Your task to perform on an android device: read, delete, or share a saved page in the chrome app Image 0: 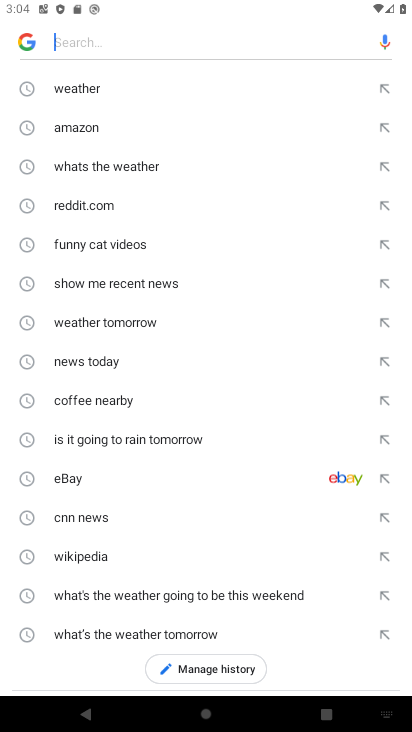
Step 0: press back button
Your task to perform on an android device: read, delete, or share a saved page in the chrome app Image 1: 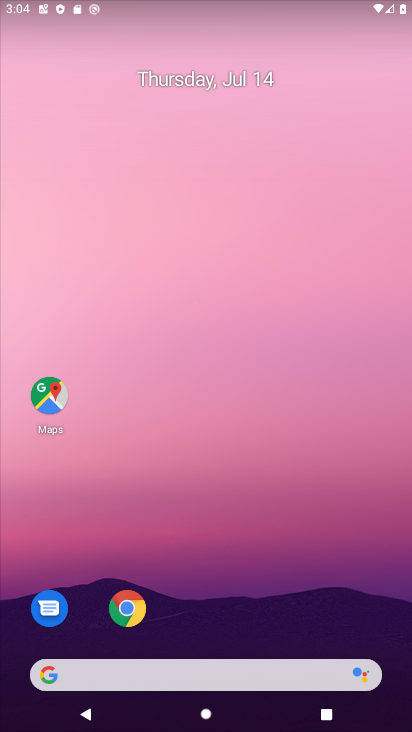
Step 1: press home button
Your task to perform on an android device: read, delete, or share a saved page in the chrome app Image 2: 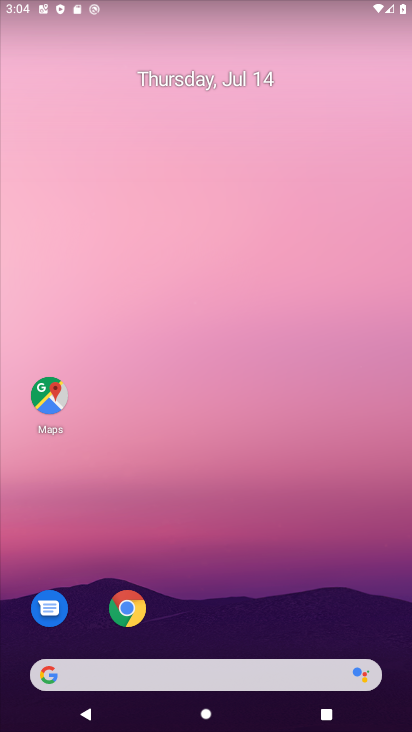
Step 2: click (130, 611)
Your task to perform on an android device: read, delete, or share a saved page in the chrome app Image 3: 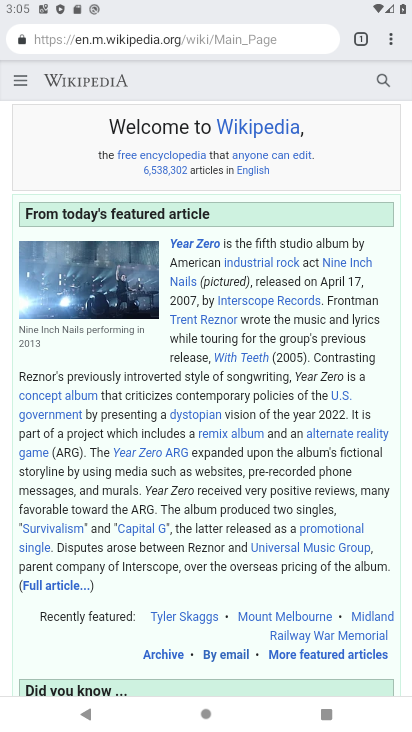
Step 3: click (355, 39)
Your task to perform on an android device: read, delete, or share a saved page in the chrome app Image 4: 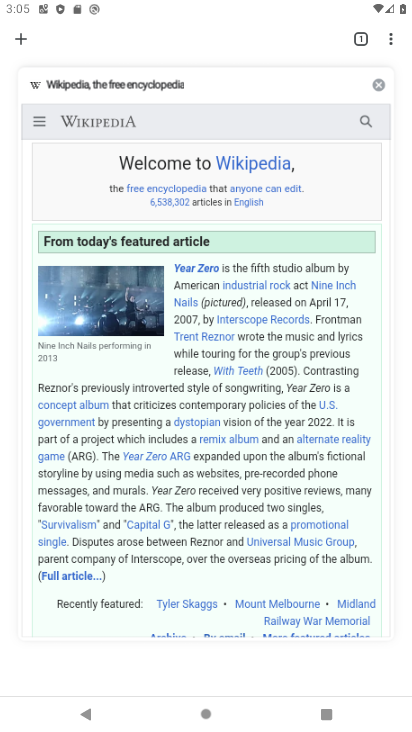
Step 4: click (21, 37)
Your task to perform on an android device: read, delete, or share a saved page in the chrome app Image 5: 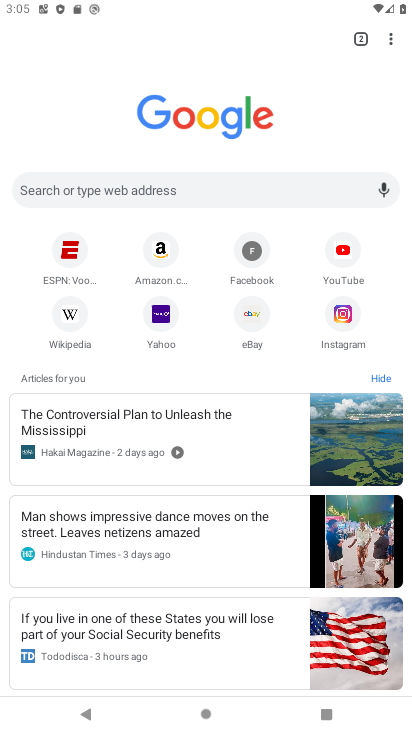
Step 5: click (341, 319)
Your task to perform on an android device: read, delete, or share a saved page in the chrome app Image 6: 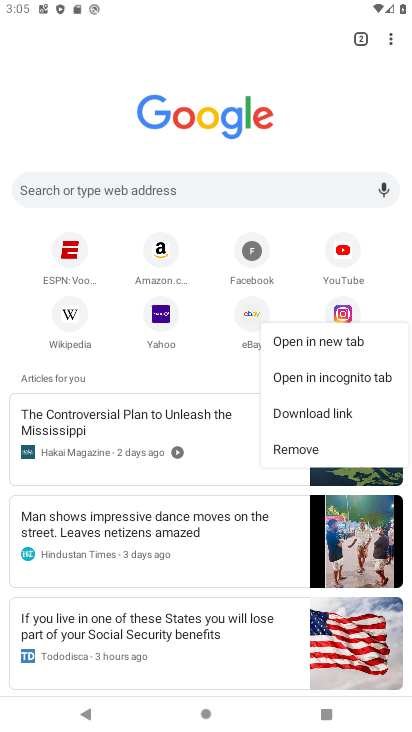
Step 6: click (336, 453)
Your task to perform on an android device: read, delete, or share a saved page in the chrome app Image 7: 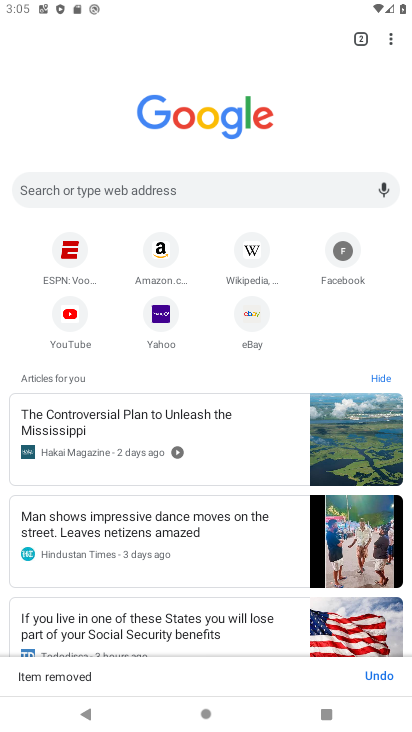
Step 7: task complete